Your task to perform on an android device: Open settings Image 0: 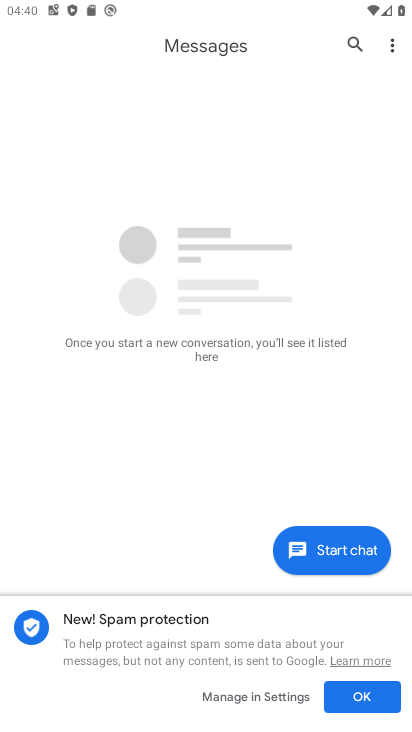
Step 0: press home button
Your task to perform on an android device: Open settings Image 1: 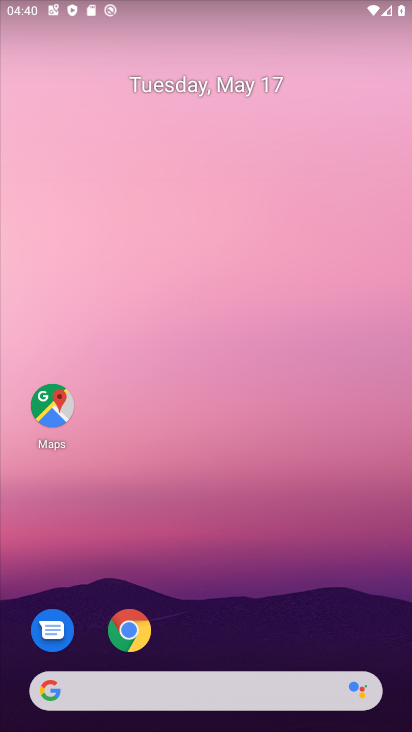
Step 1: drag from (216, 610) to (217, 81)
Your task to perform on an android device: Open settings Image 2: 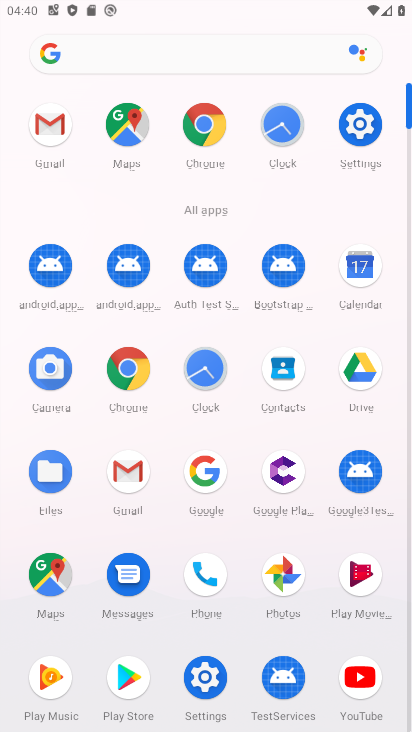
Step 2: click (350, 127)
Your task to perform on an android device: Open settings Image 3: 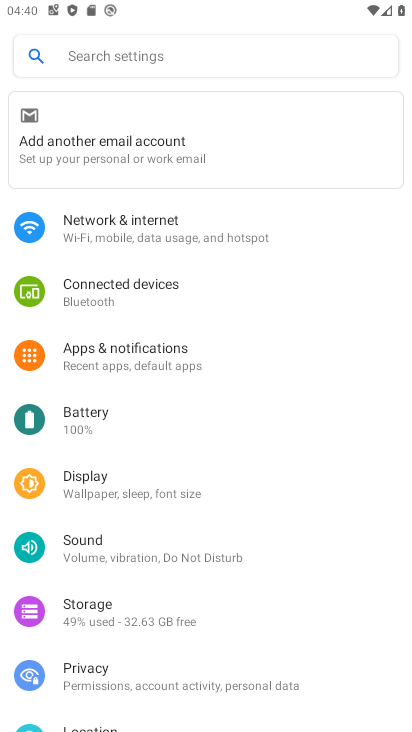
Step 3: task complete